Your task to perform on an android device: Toggle the flashlight Image 0: 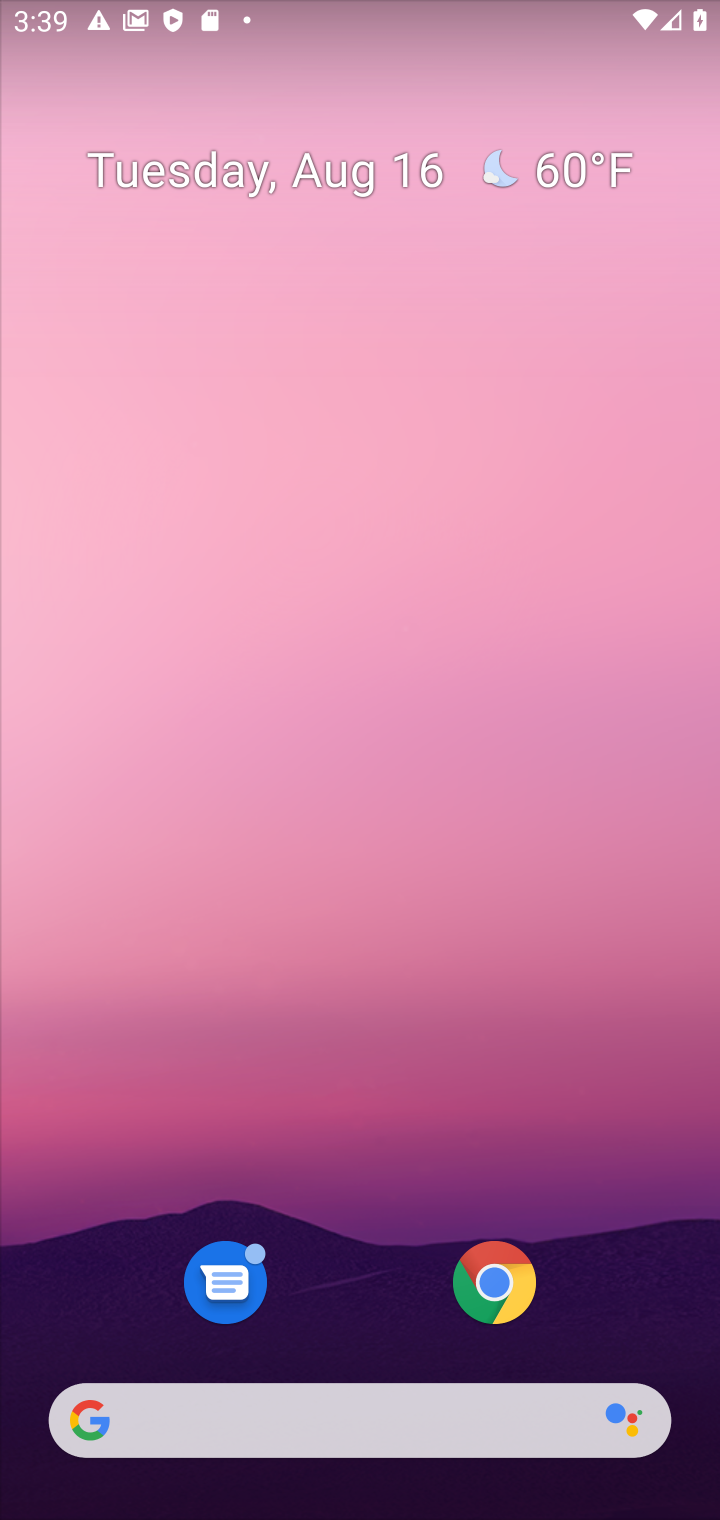
Step 0: press back button
Your task to perform on an android device: Toggle the flashlight Image 1: 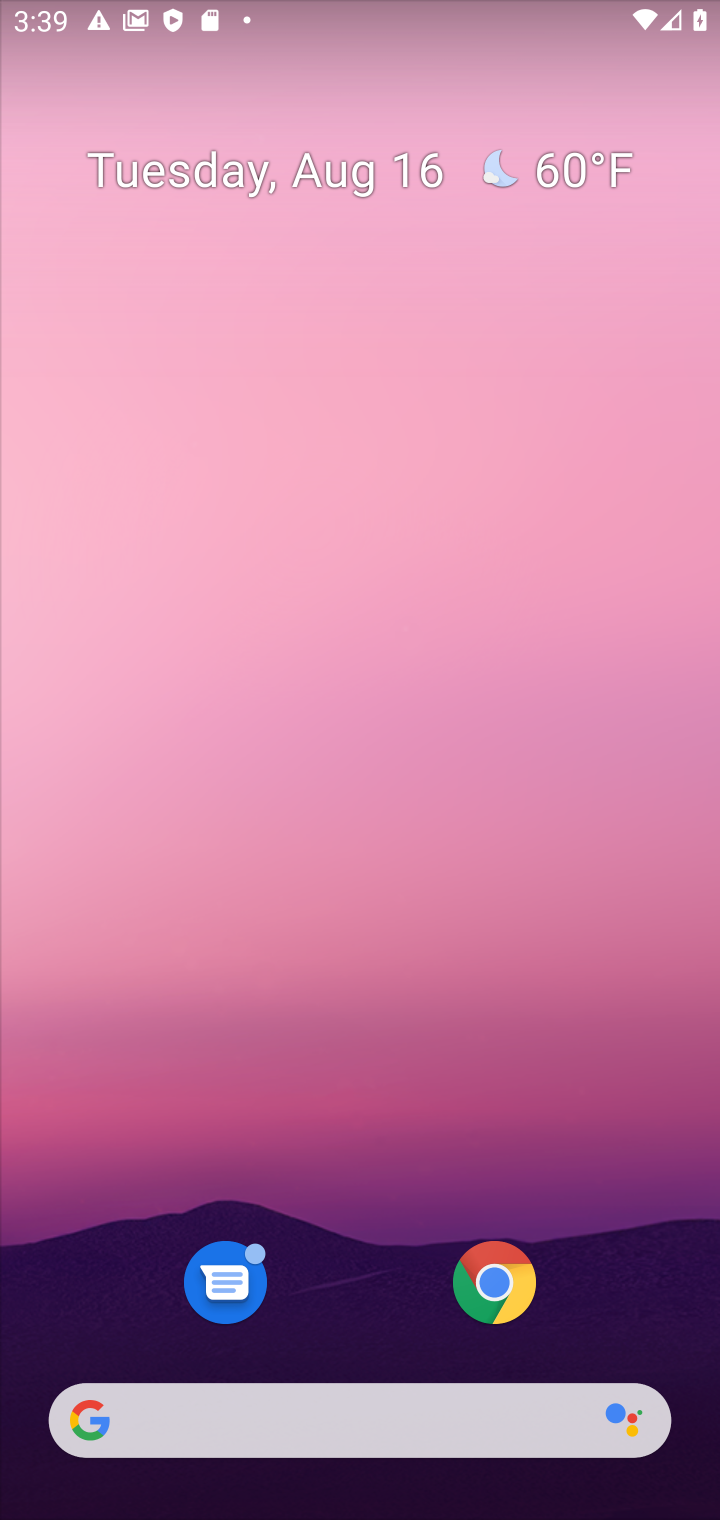
Step 1: drag from (363, 1258) to (453, 1)
Your task to perform on an android device: Toggle the flashlight Image 2: 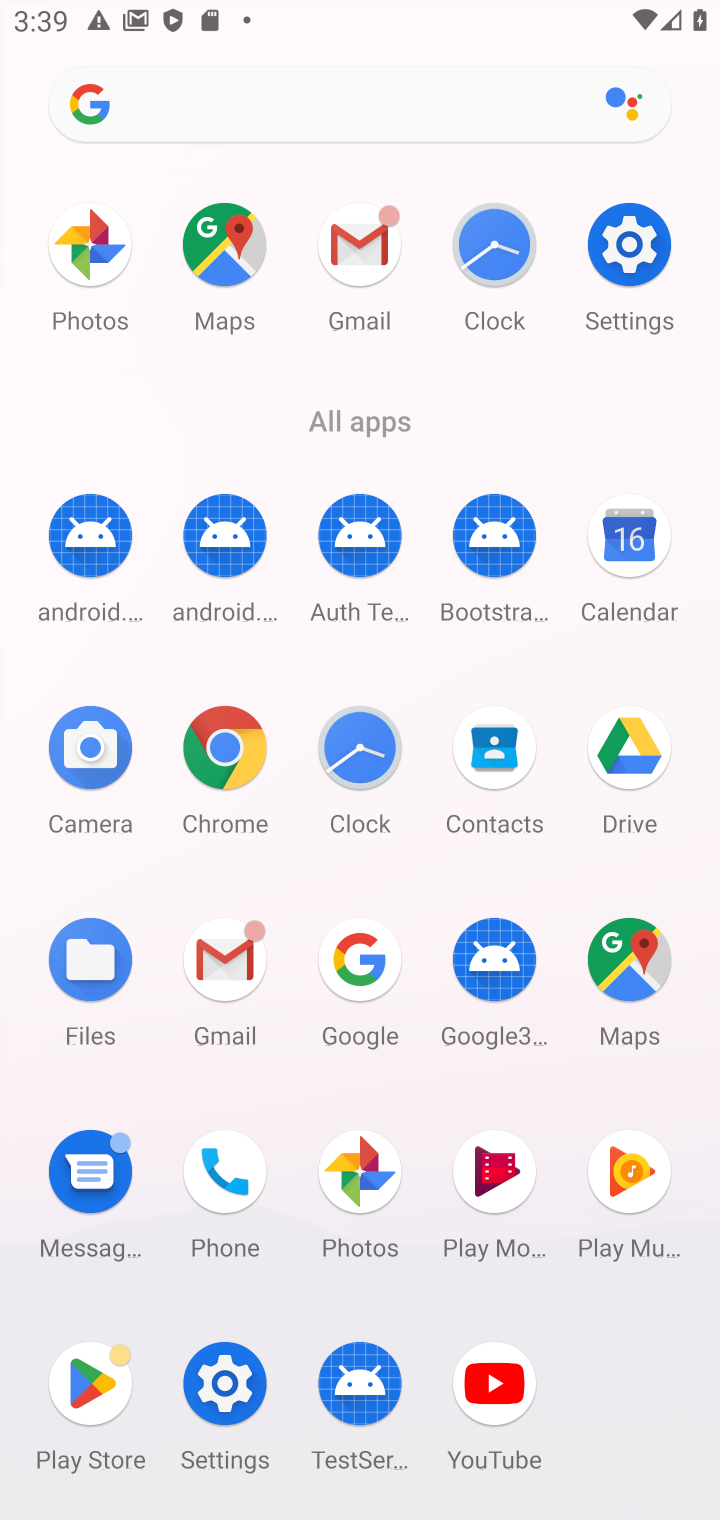
Step 2: click (647, 248)
Your task to perform on an android device: Toggle the flashlight Image 3: 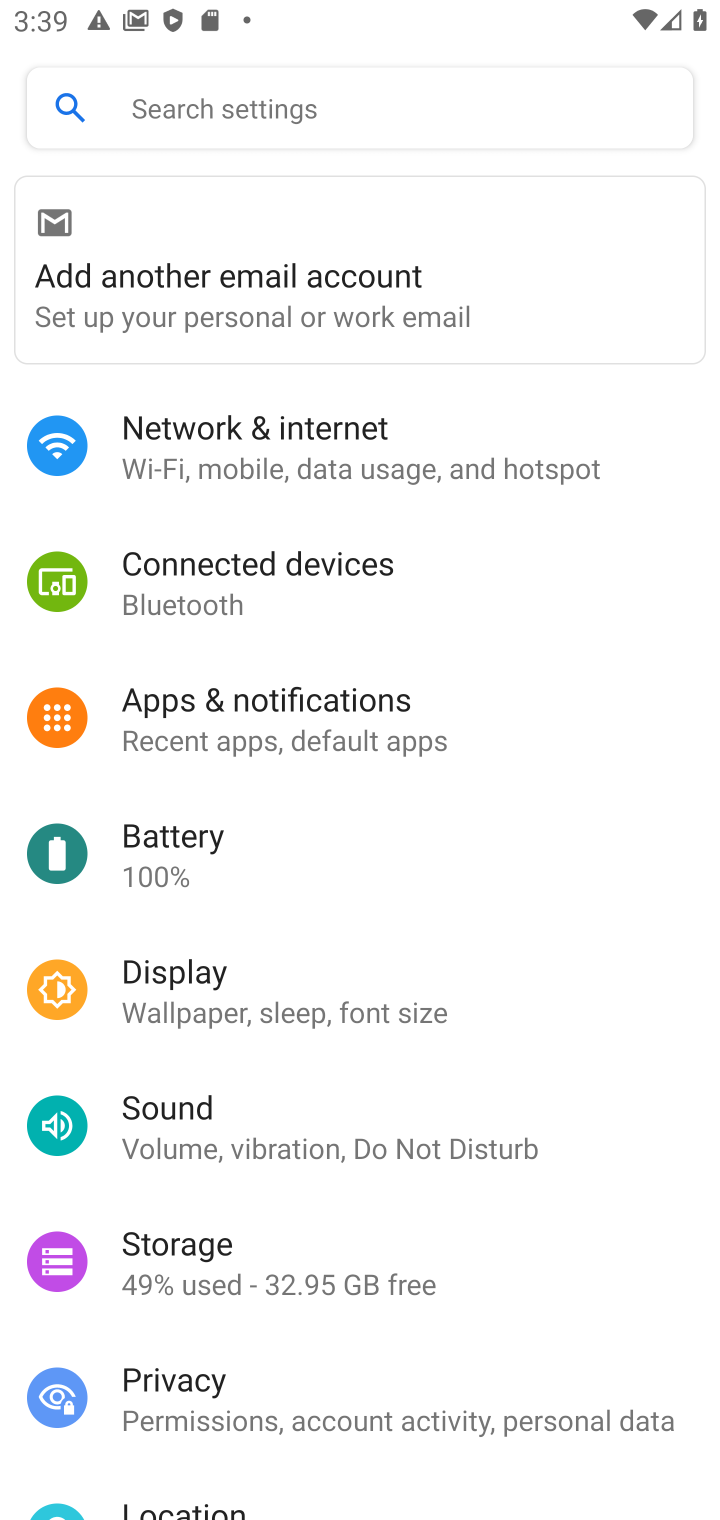
Step 3: click (250, 117)
Your task to perform on an android device: Toggle the flashlight Image 4: 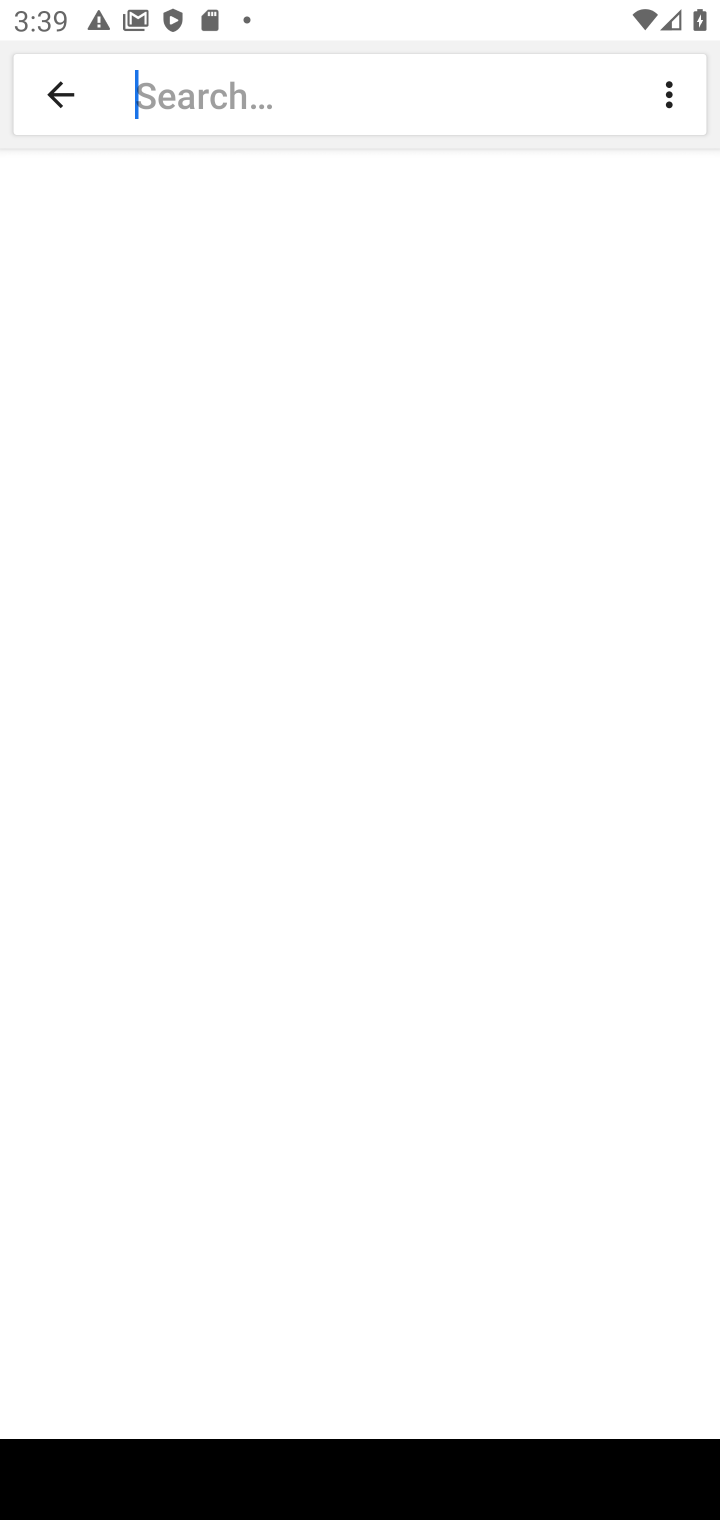
Step 4: type "flashlight"
Your task to perform on an android device: Toggle the flashlight Image 5: 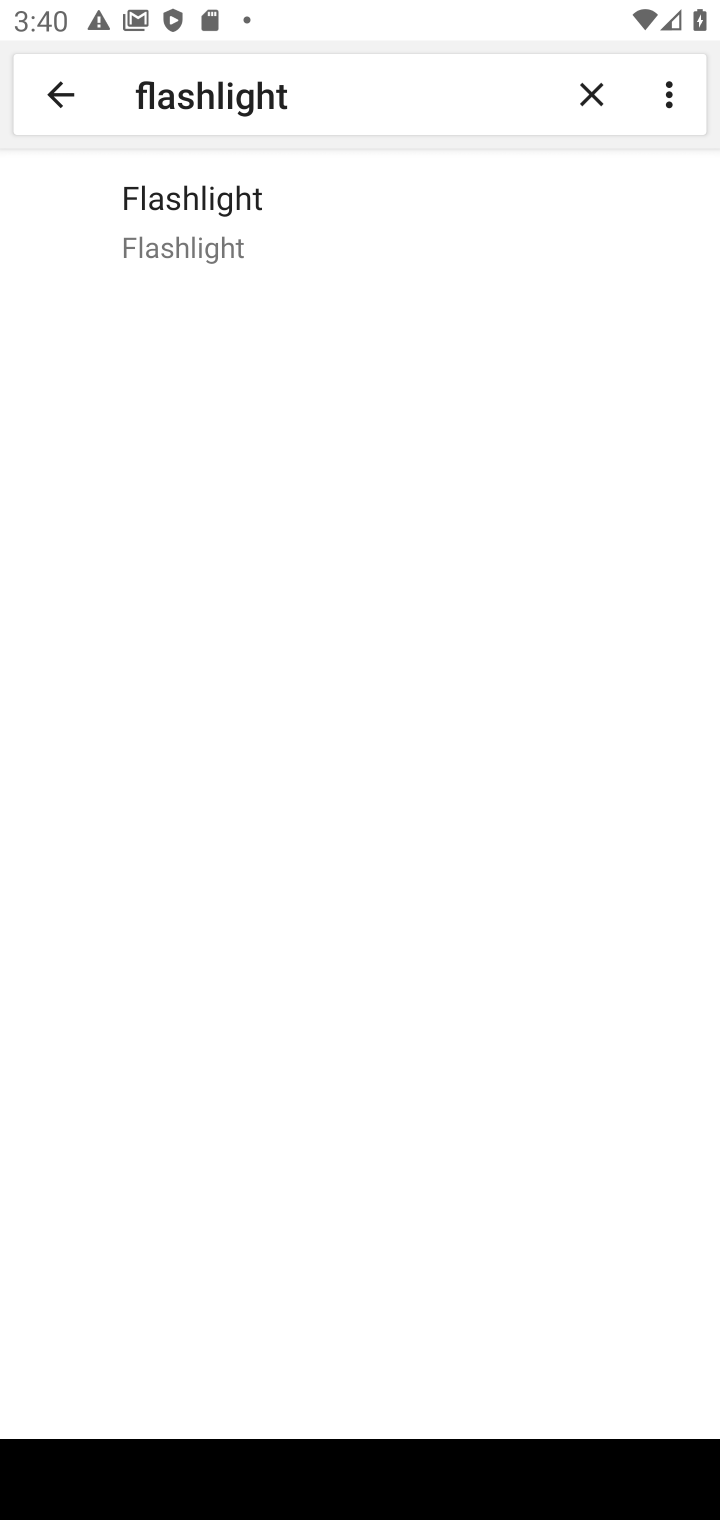
Step 5: click (197, 225)
Your task to perform on an android device: Toggle the flashlight Image 6: 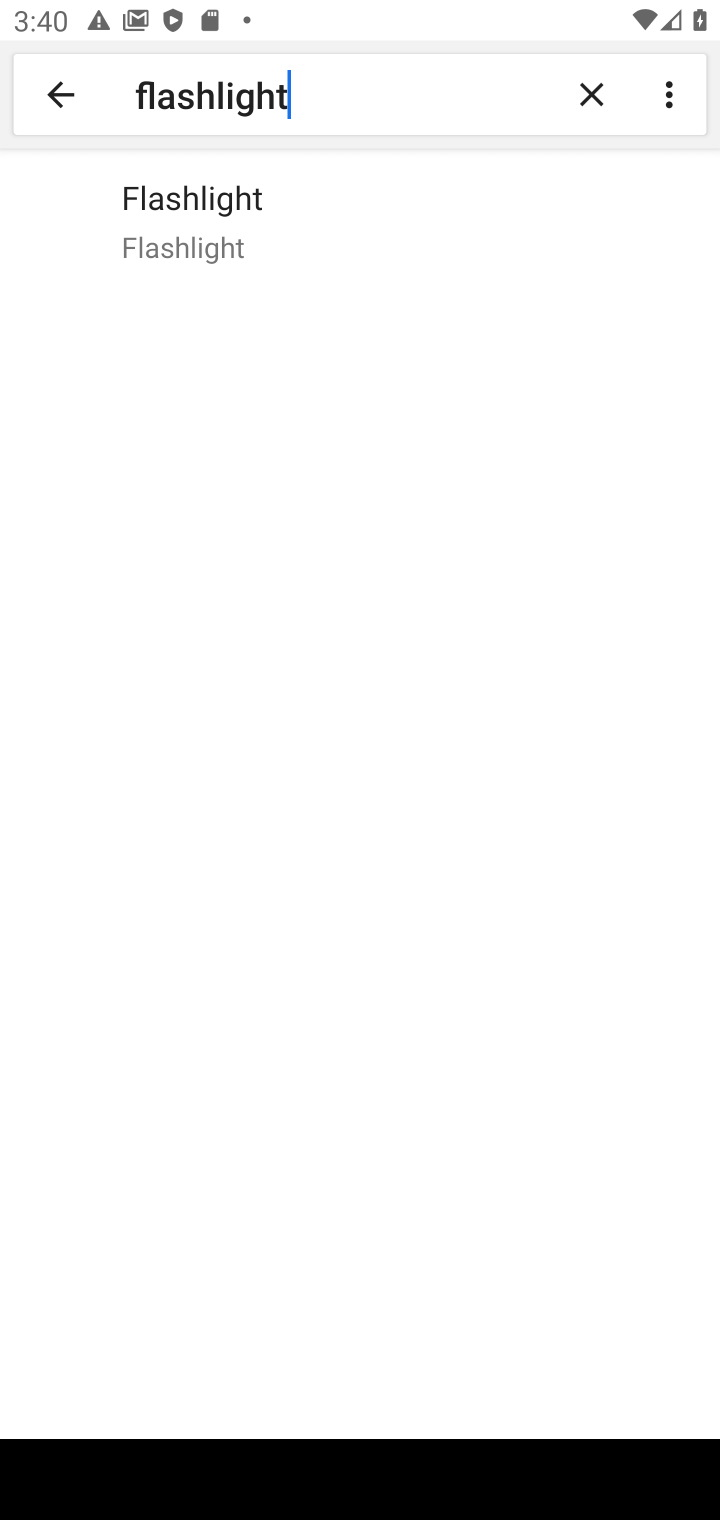
Step 6: task complete